Your task to perform on an android device: Show me popular games on the Play Store Image 0: 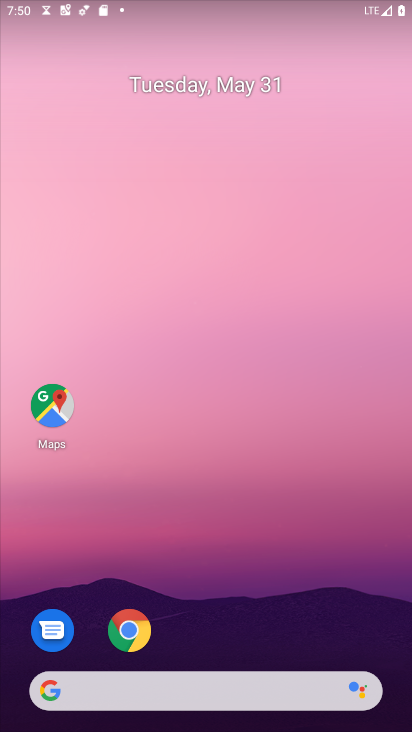
Step 0: drag from (258, 552) to (232, 79)
Your task to perform on an android device: Show me popular games on the Play Store Image 1: 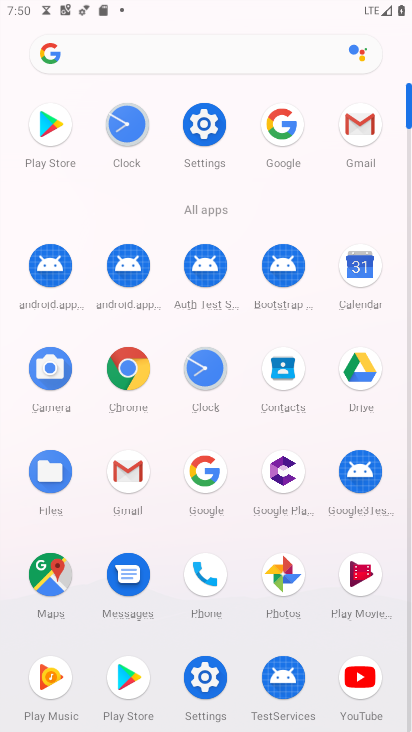
Step 1: click (51, 126)
Your task to perform on an android device: Show me popular games on the Play Store Image 2: 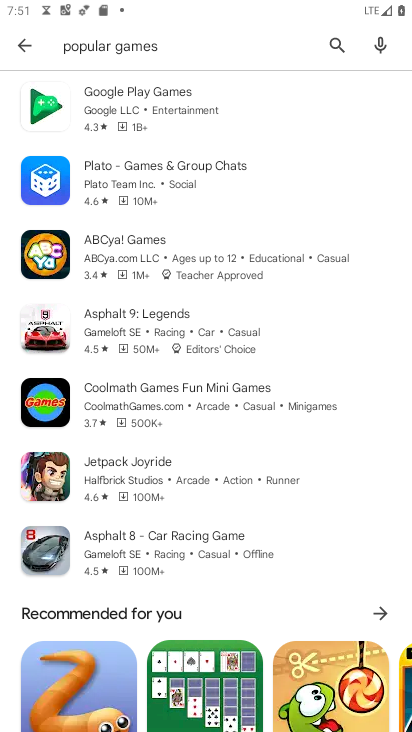
Step 2: task complete